Your task to perform on an android device: Go to privacy settings Image 0: 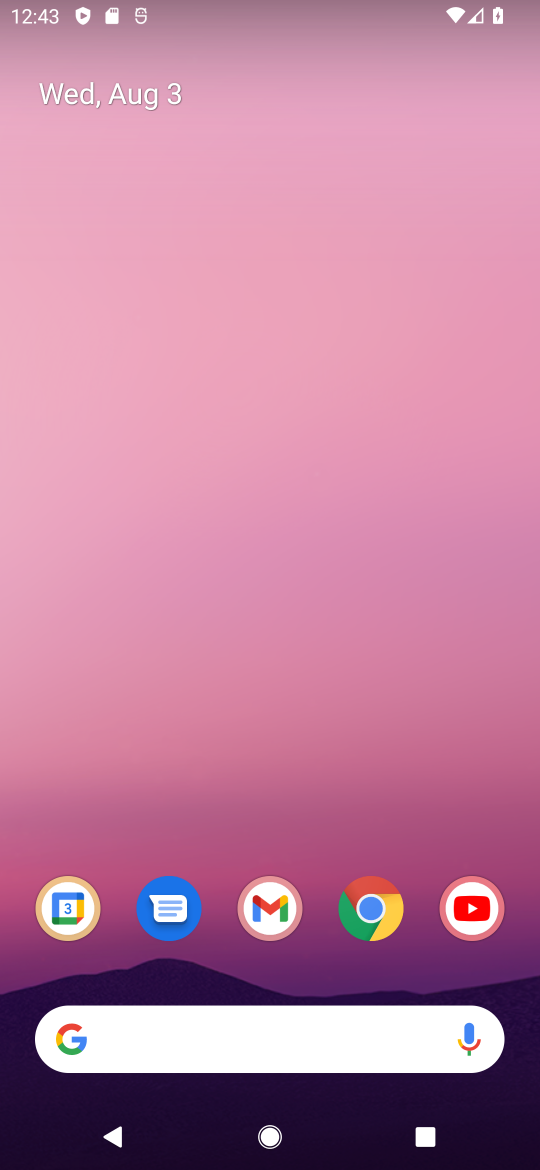
Step 0: drag from (229, 886) to (217, 285)
Your task to perform on an android device: Go to privacy settings Image 1: 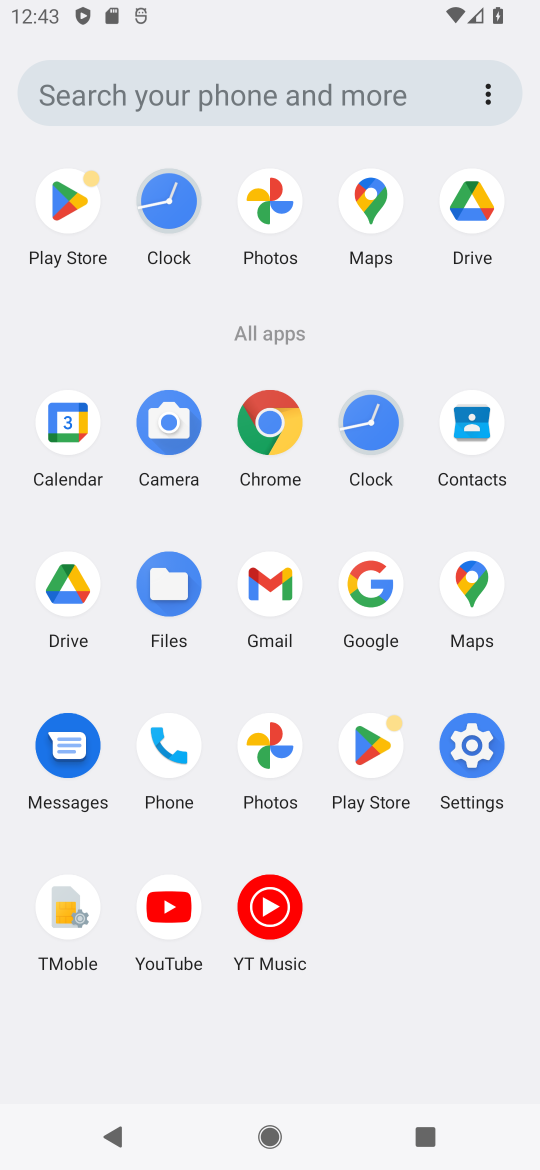
Step 1: click (466, 768)
Your task to perform on an android device: Go to privacy settings Image 2: 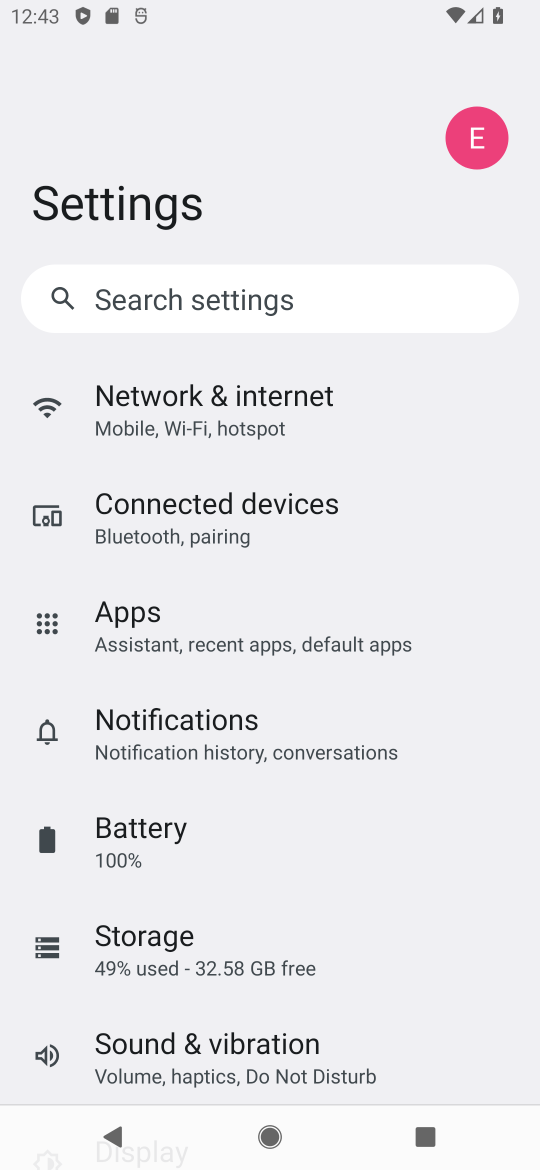
Step 2: drag from (206, 750) to (206, 429)
Your task to perform on an android device: Go to privacy settings Image 3: 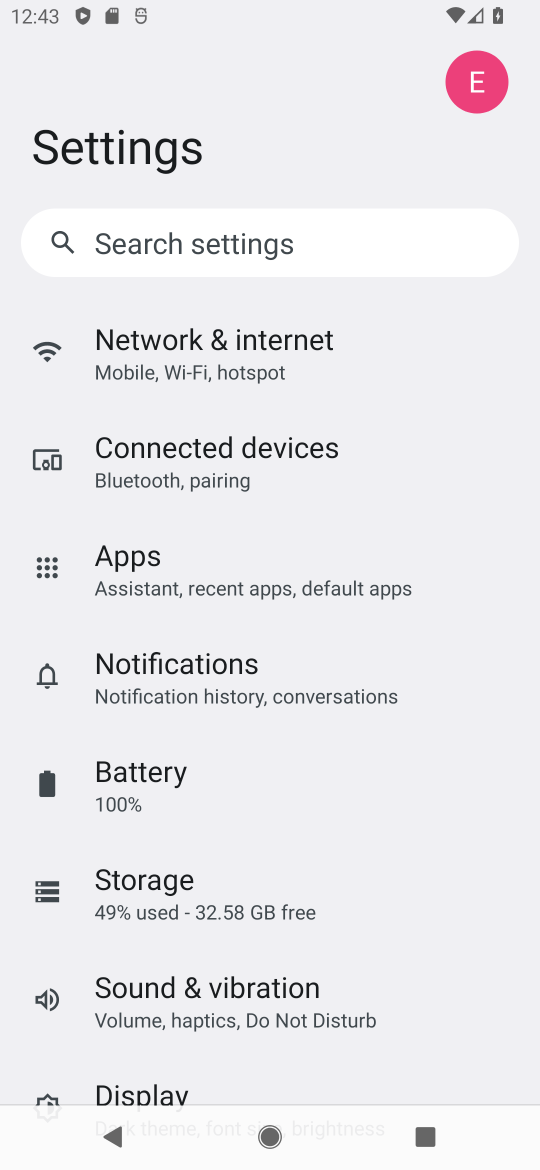
Step 3: drag from (183, 1083) to (185, 629)
Your task to perform on an android device: Go to privacy settings Image 4: 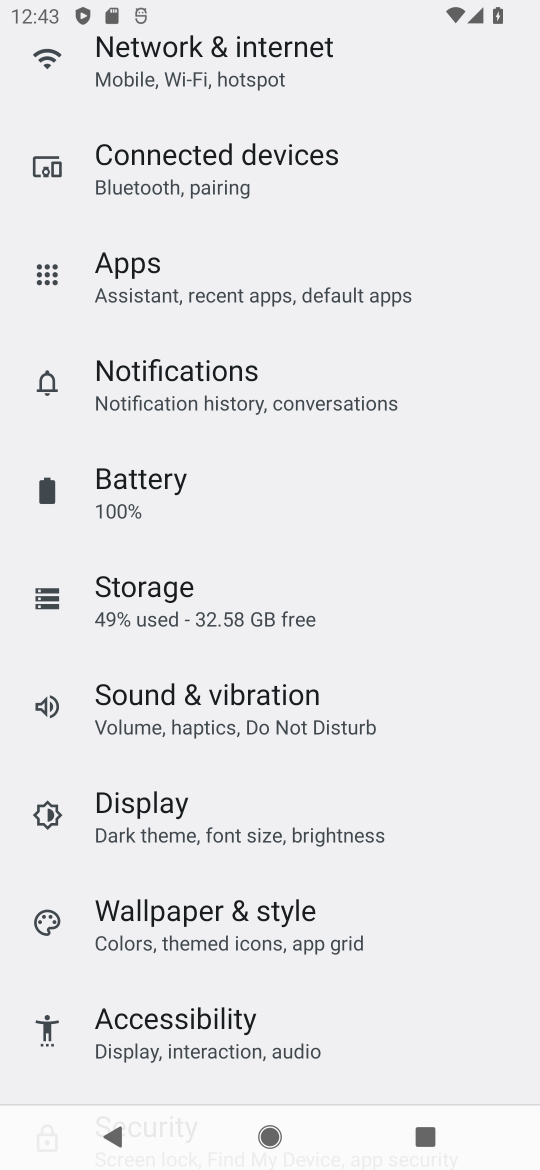
Step 4: drag from (175, 436) to (197, 859)
Your task to perform on an android device: Go to privacy settings Image 5: 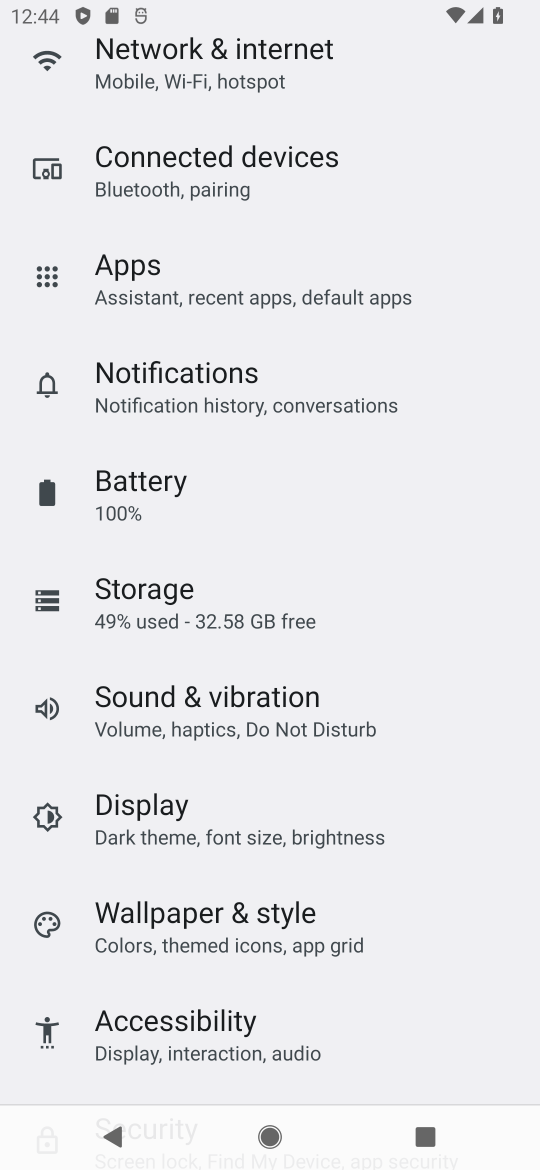
Step 5: drag from (197, 847) to (232, 474)
Your task to perform on an android device: Go to privacy settings Image 6: 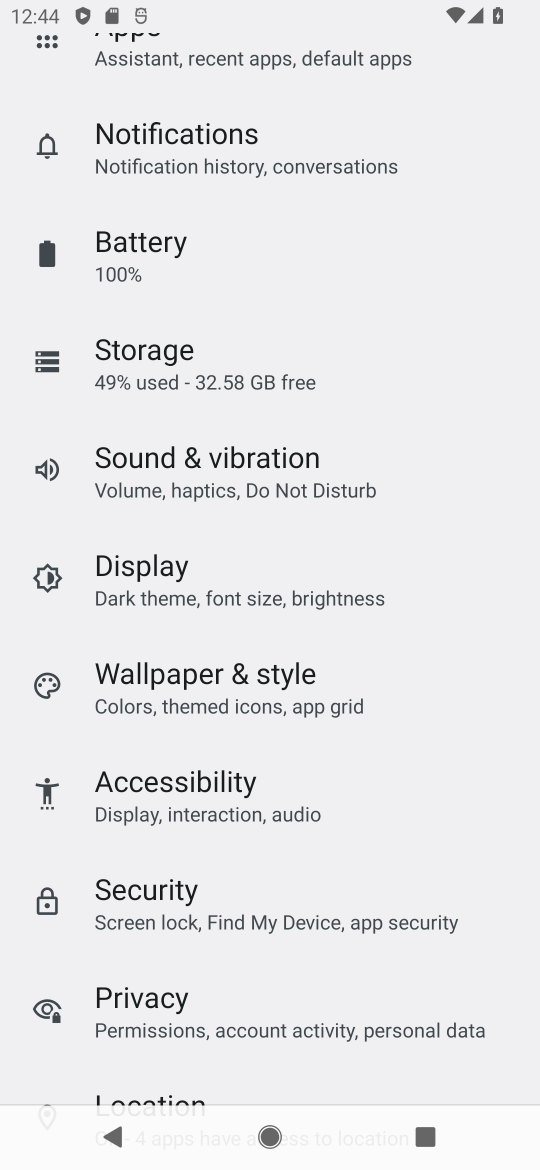
Step 6: click (162, 985)
Your task to perform on an android device: Go to privacy settings Image 7: 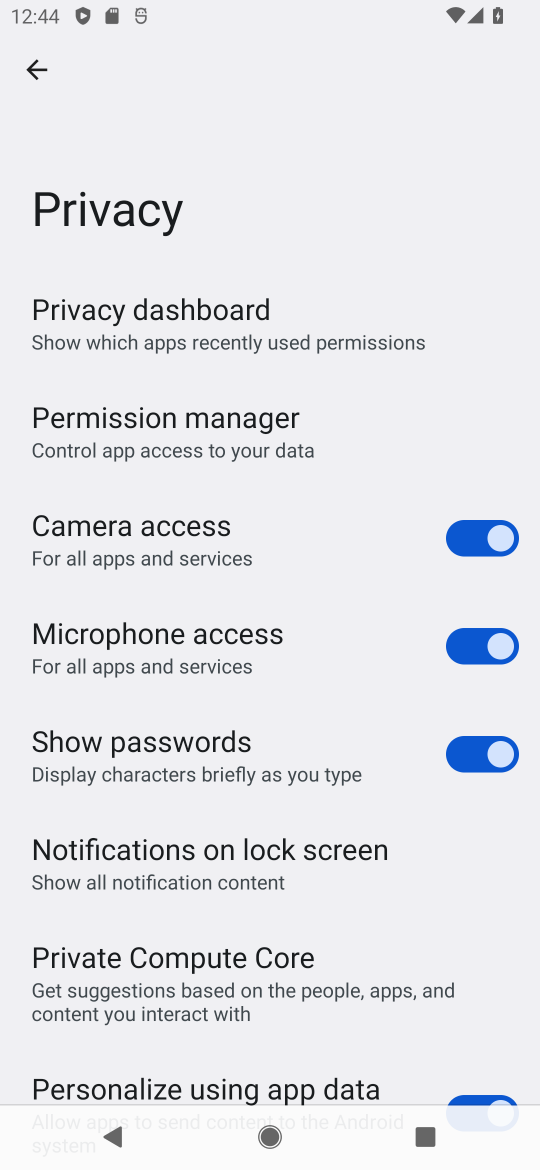
Step 7: task complete